Your task to perform on an android device: empty trash in the gmail app Image 0: 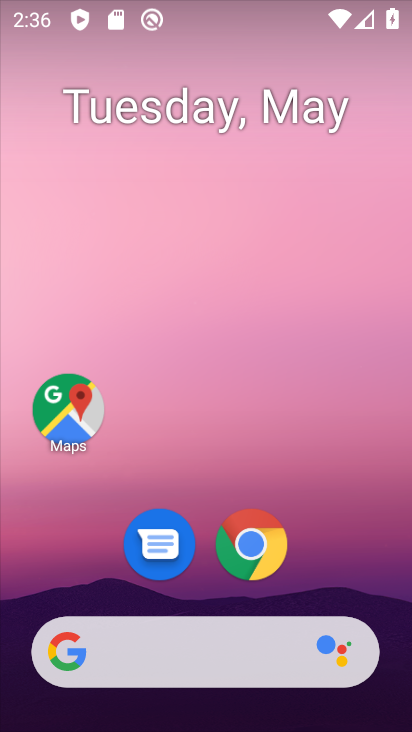
Step 0: drag from (340, 554) to (321, 23)
Your task to perform on an android device: empty trash in the gmail app Image 1: 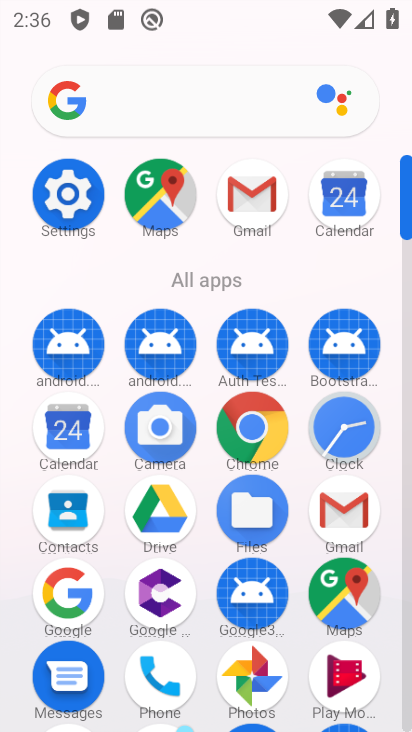
Step 1: click (253, 197)
Your task to perform on an android device: empty trash in the gmail app Image 2: 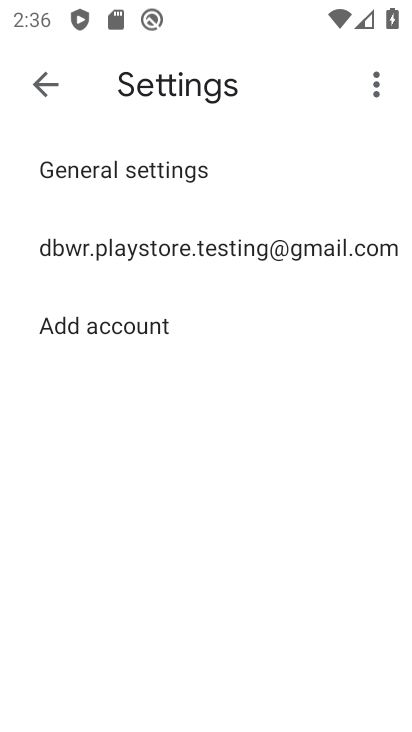
Step 2: task complete